Your task to perform on an android device: turn on location history Image 0: 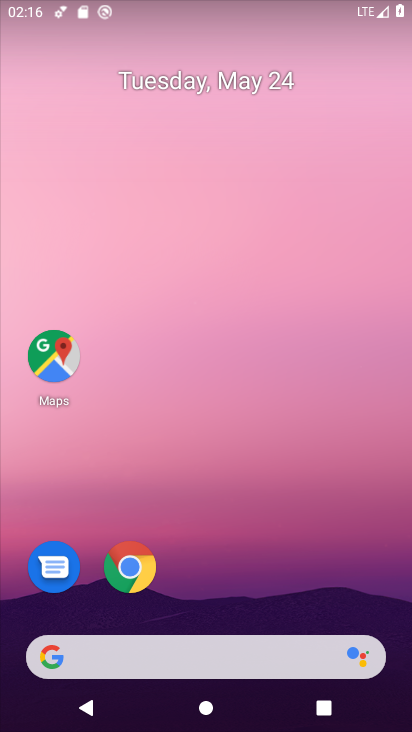
Step 0: drag from (258, 611) to (258, 271)
Your task to perform on an android device: turn on location history Image 1: 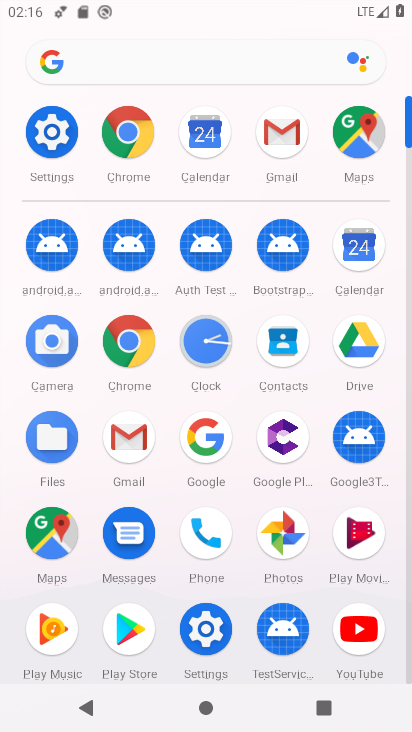
Step 1: click (204, 622)
Your task to perform on an android device: turn on location history Image 2: 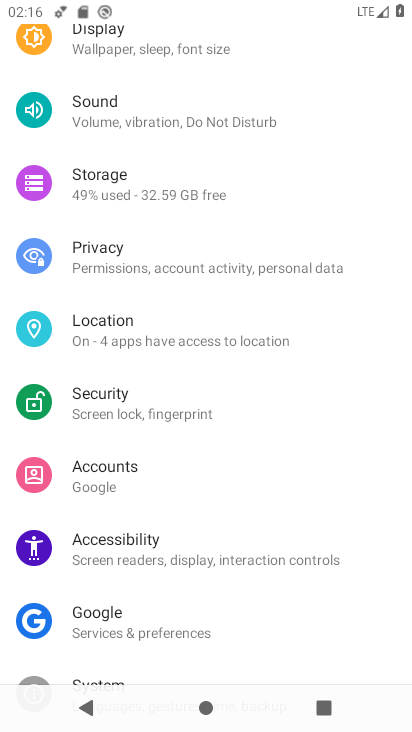
Step 2: click (120, 331)
Your task to perform on an android device: turn on location history Image 3: 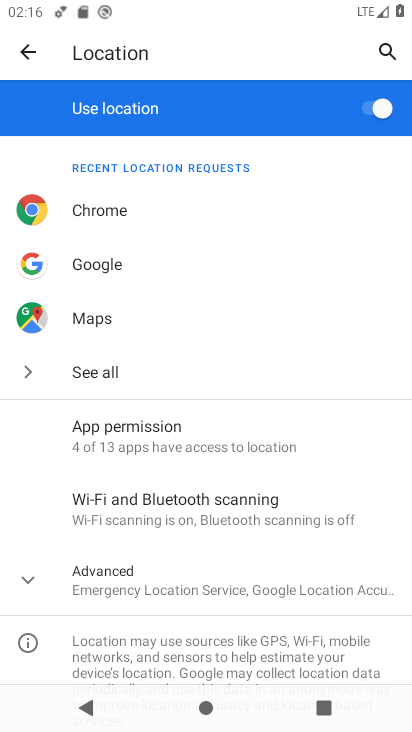
Step 3: click (148, 582)
Your task to perform on an android device: turn on location history Image 4: 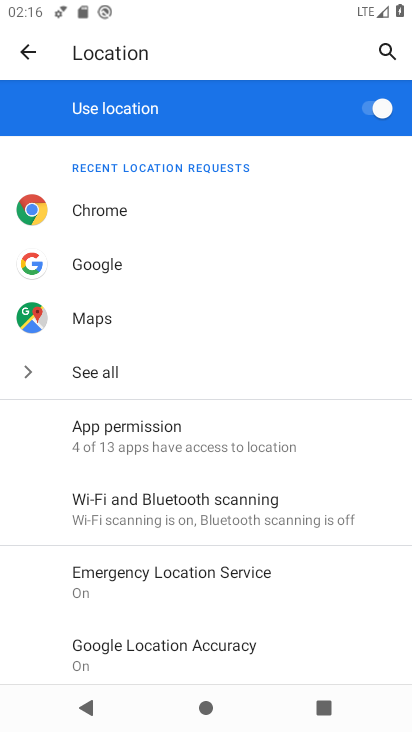
Step 4: drag from (212, 638) to (267, 368)
Your task to perform on an android device: turn on location history Image 5: 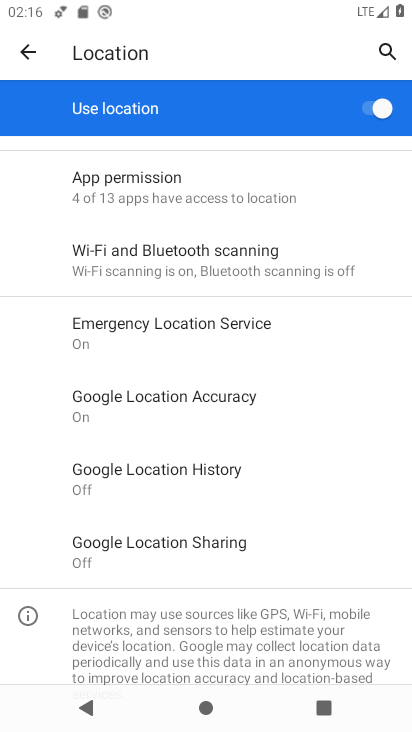
Step 5: click (194, 463)
Your task to perform on an android device: turn on location history Image 6: 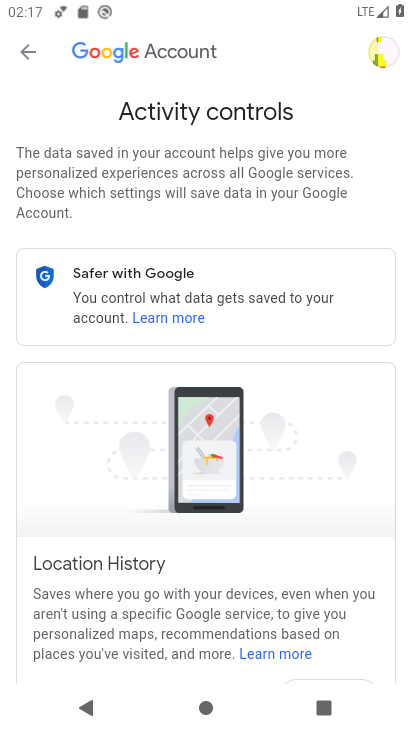
Step 6: task complete